Your task to perform on an android device: Go to Yahoo.com Image 0: 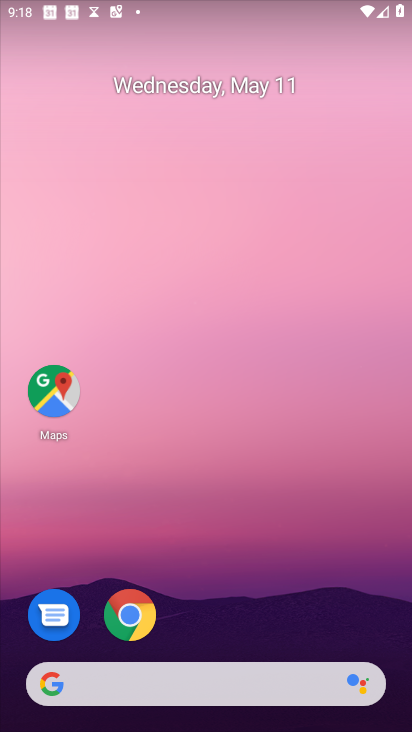
Step 0: press home button
Your task to perform on an android device: Go to Yahoo.com Image 1: 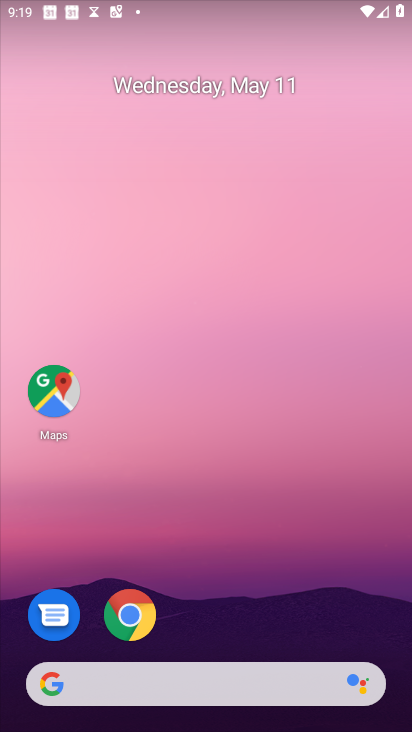
Step 1: click (109, 615)
Your task to perform on an android device: Go to Yahoo.com Image 2: 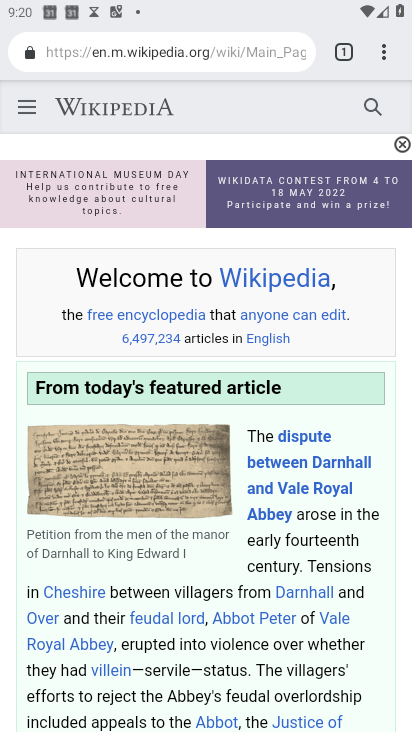
Step 2: click (348, 52)
Your task to perform on an android device: Go to Yahoo.com Image 3: 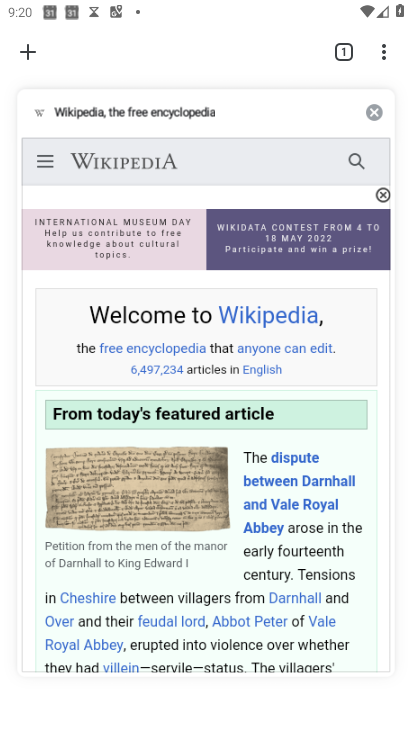
Step 3: click (370, 115)
Your task to perform on an android device: Go to Yahoo.com Image 4: 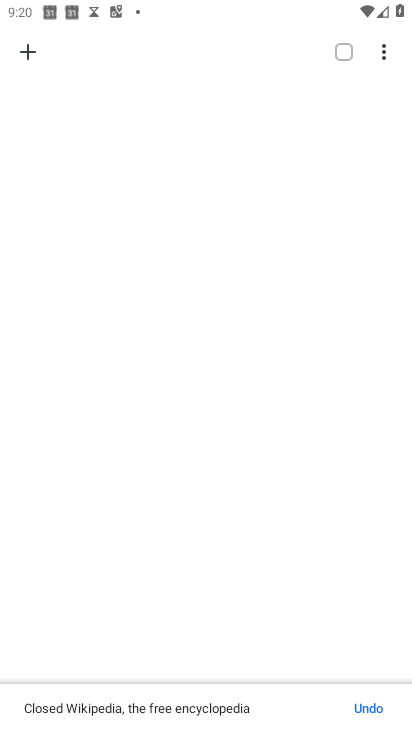
Step 4: click (27, 52)
Your task to perform on an android device: Go to Yahoo.com Image 5: 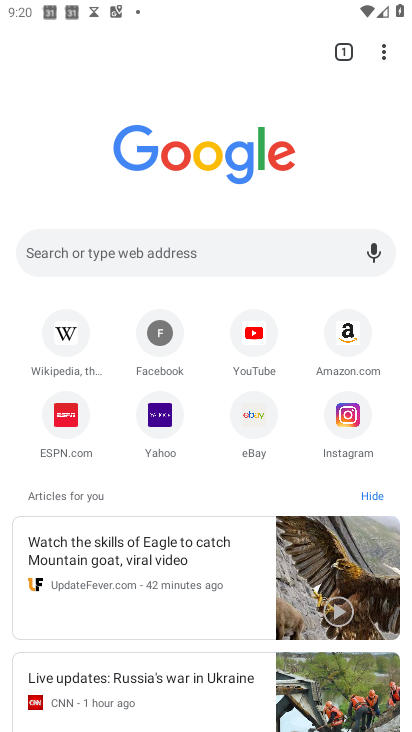
Step 5: click (169, 417)
Your task to perform on an android device: Go to Yahoo.com Image 6: 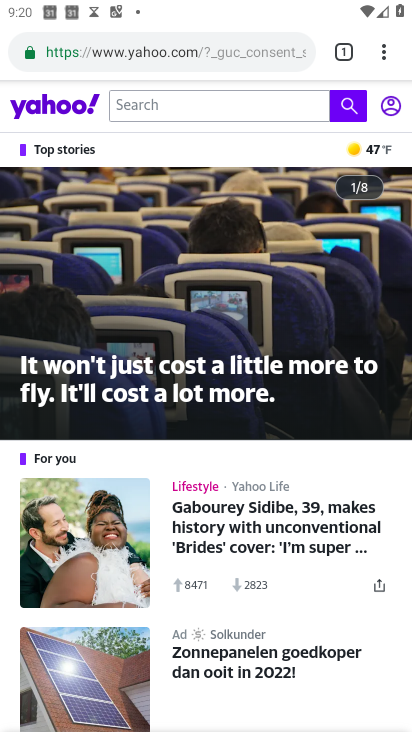
Step 6: task complete